Your task to perform on an android device: What is the news today? Image 0: 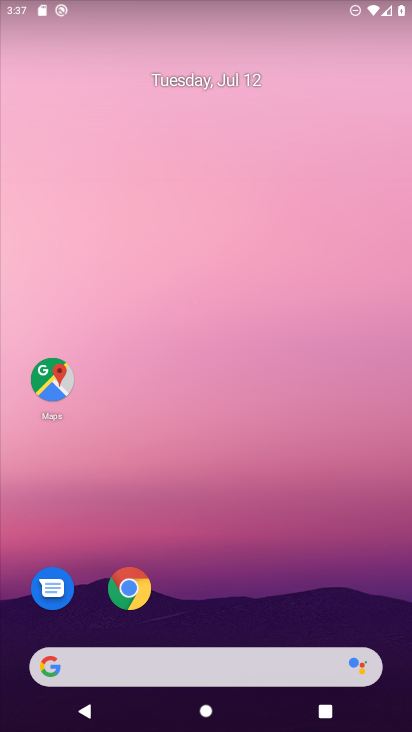
Step 0: drag from (299, 610) to (222, 15)
Your task to perform on an android device: What is the news today? Image 1: 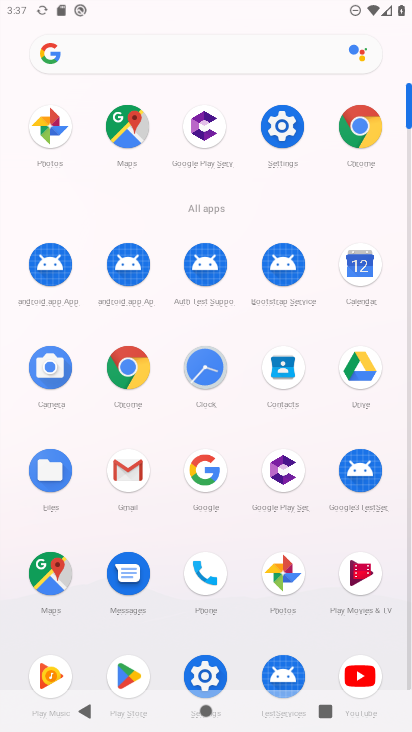
Step 1: click (370, 140)
Your task to perform on an android device: What is the news today? Image 2: 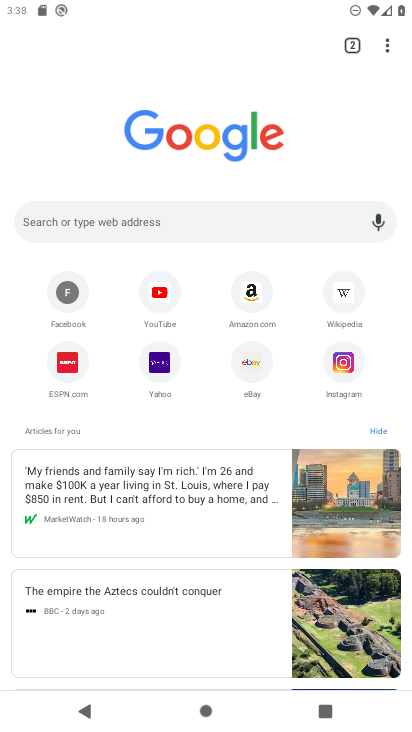
Step 2: click (261, 225)
Your task to perform on an android device: What is the news today? Image 3: 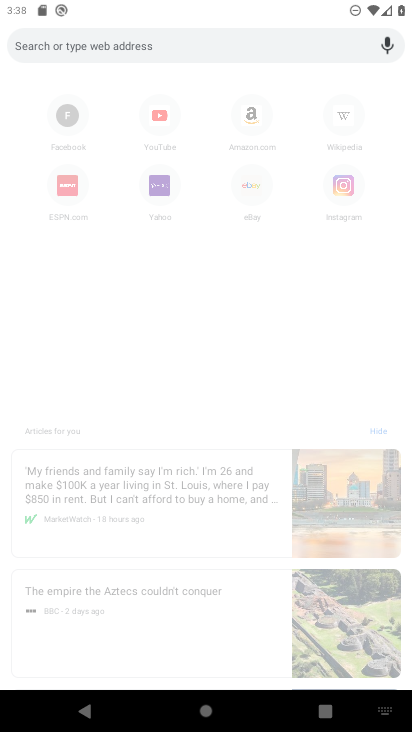
Step 3: type "What is the news today?"
Your task to perform on an android device: What is the news today? Image 4: 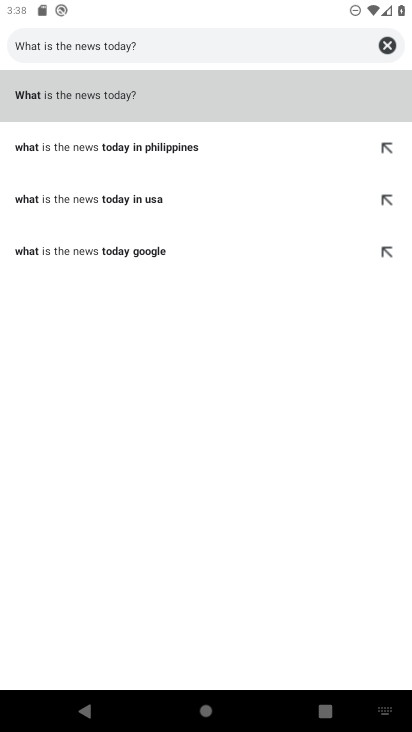
Step 4: click (133, 102)
Your task to perform on an android device: What is the news today? Image 5: 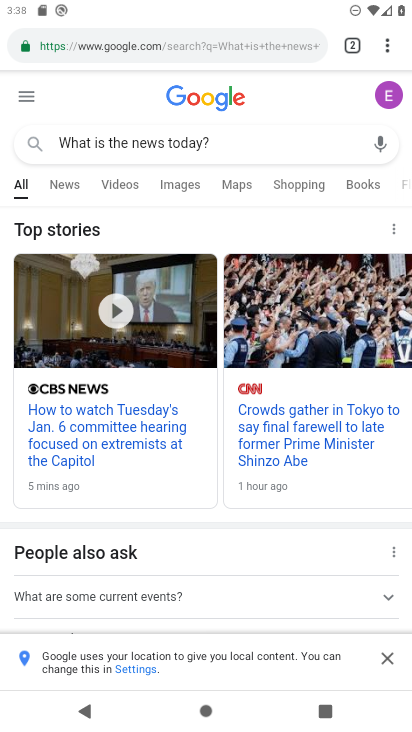
Step 5: click (387, 661)
Your task to perform on an android device: What is the news today? Image 6: 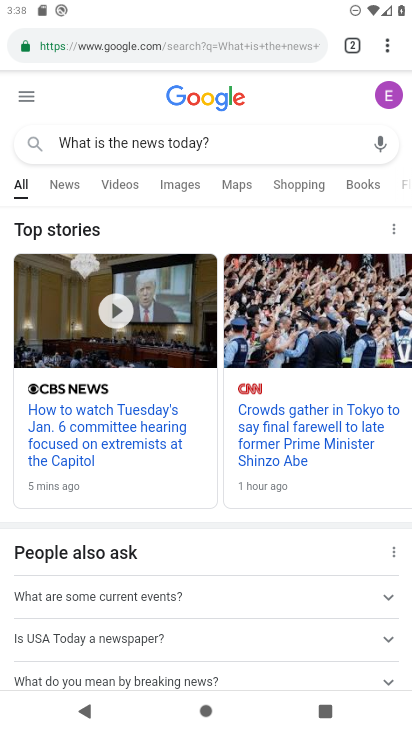
Step 6: task complete